Your task to perform on an android device: Go to Wikipedia Image 0: 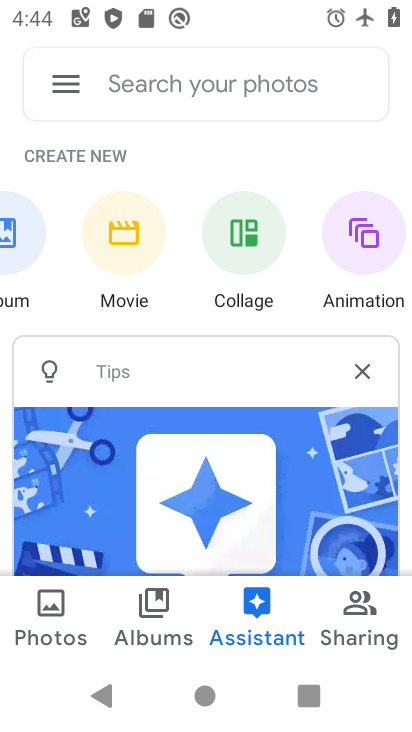
Step 0: press home button
Your task to perform on an android device: Go to Wikipedia Image 1: 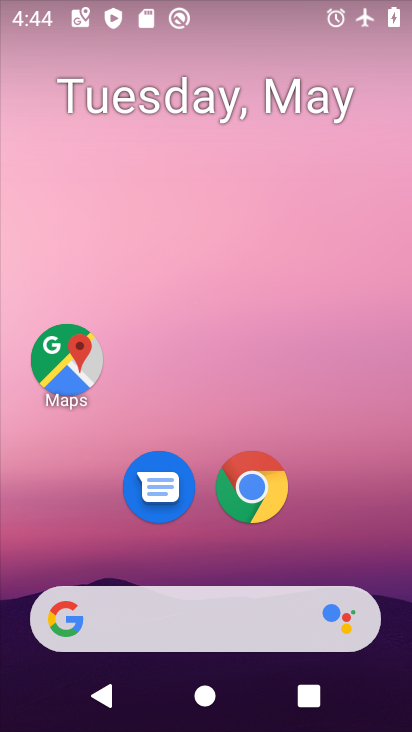
Step 1: click (260, 486)
Your task to perform on an android device: Go to Wikipedia Image 2: 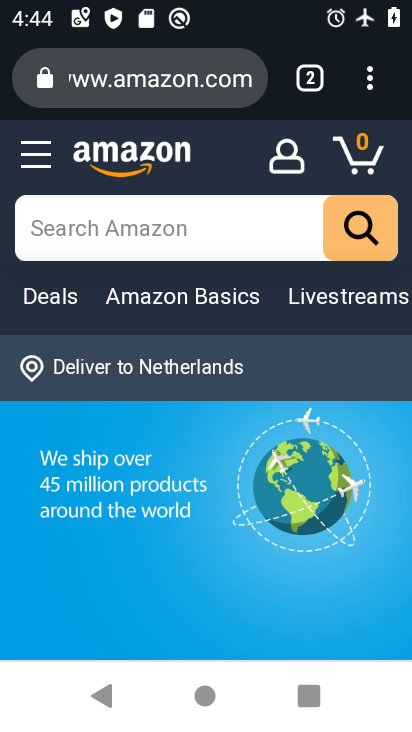
Step 2: click (164, 90)
Your task to perform on an android device: Go to Wikipedia Image 3: 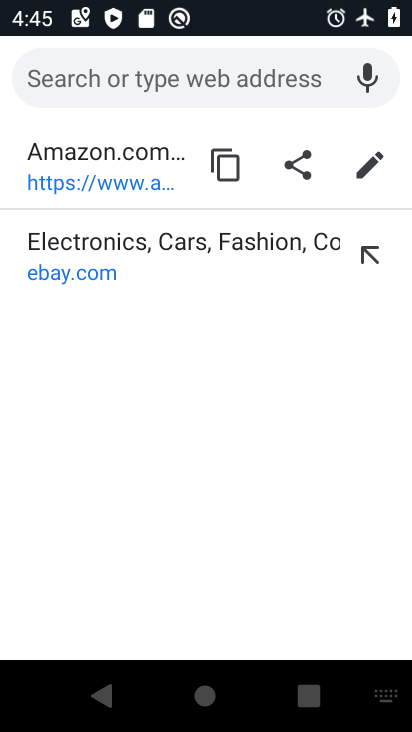
Step 3: type "wikipedia"
Your task to perform on an android device: Go to Wikipedia Image 4: 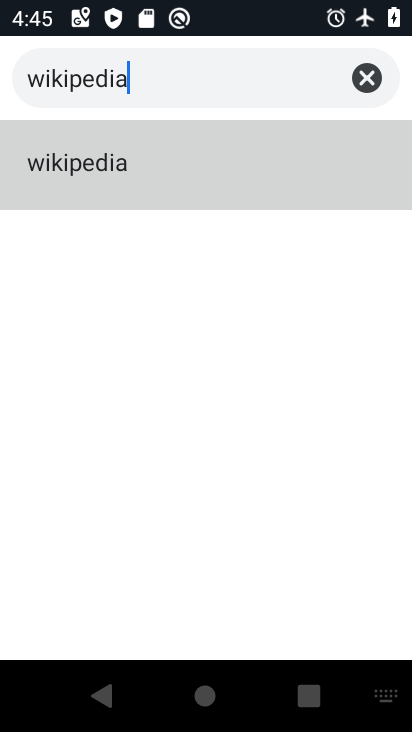
Step 4: click (97, 165)
Your task to perform on an android device: Go to Wikipedia Image 5: 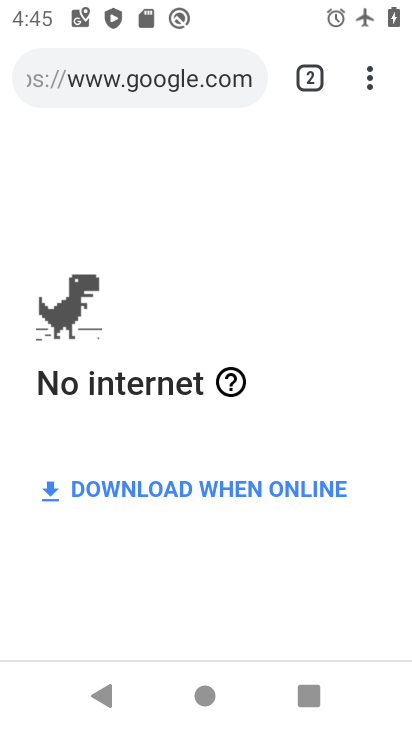
Step 5: task complete